Your task to perform on an android device: Do I have any events today? Image 0: 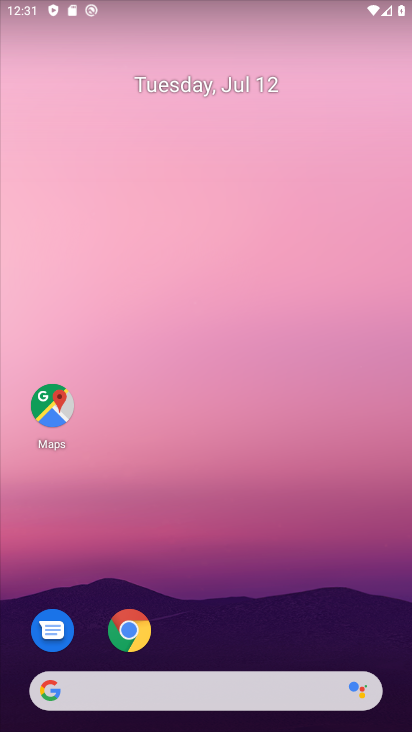
Step 0: drag from (217, 614) to (195, 140)
Your task to perform on an android device: Do I have any events today? Image 1: 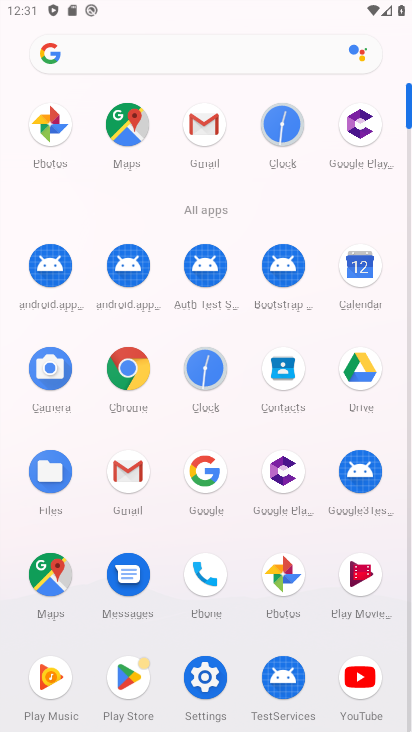
Step 1: click (362, 269)
Your task to perform on an android device: Do I have any events today? Image 2: 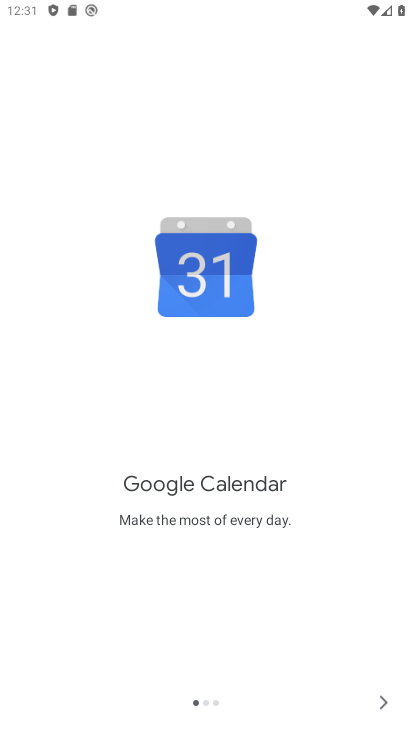
Step 2: click (378, 697)
Your task to perform on an android device: Do I have any events today? Image 3: 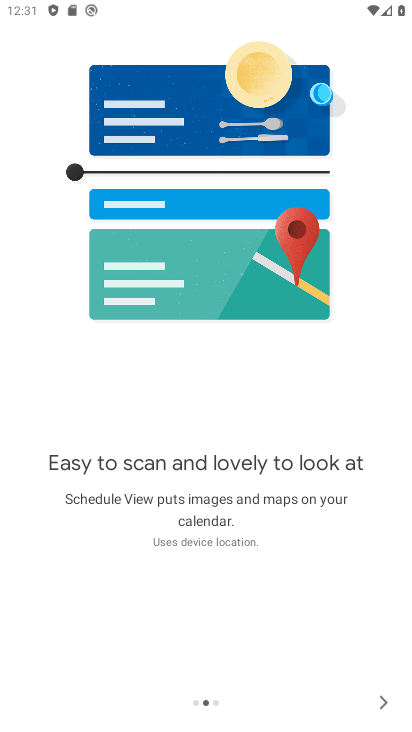
Step 3: click (378, 697)
Your task to perform on an android device: Do I have any events today? Image 4: 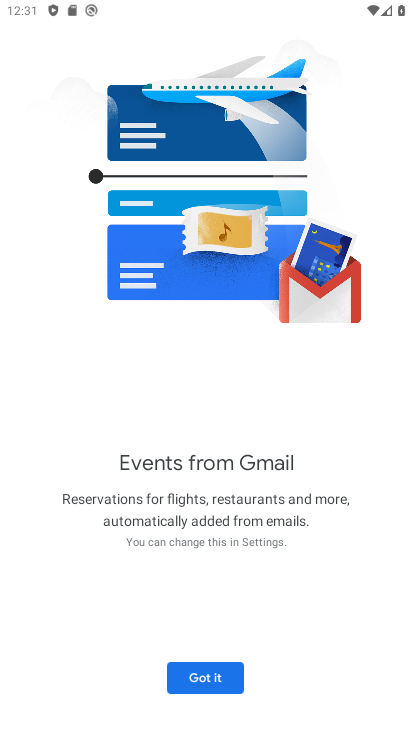
Step 4: click (186, 676)
Your task to perform on an android device: Do I have any events today? Image 5: 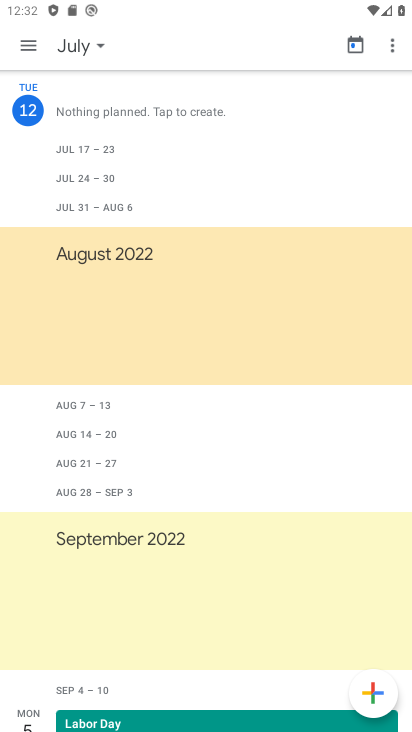
Step 5: click (70, 43)
Your task to perform on an android device: Do I have any events today? Image 6: 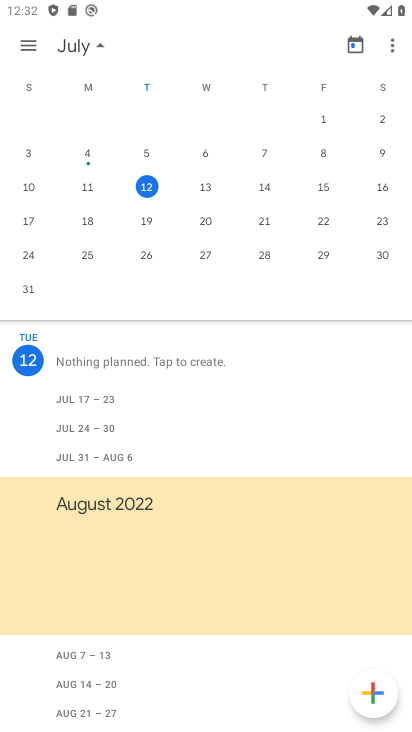
Step 6: click (150, 183)
Your task to perform on an android device: Do I have any events today? Image 7: 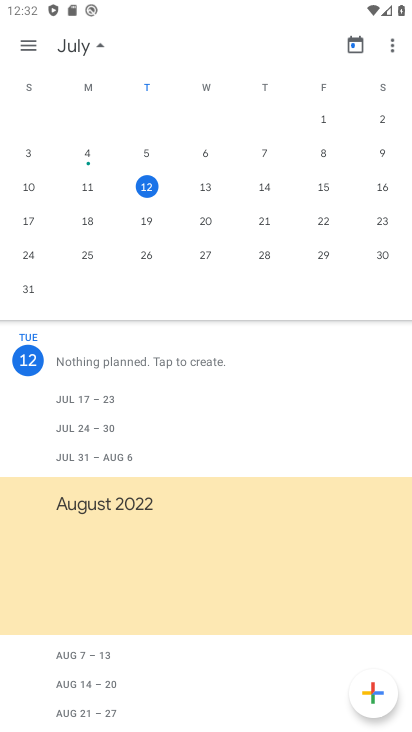
Step 7: task complete